Your task to perform on an android device: Open Google Chrome and open the bookmarks view Image 0: 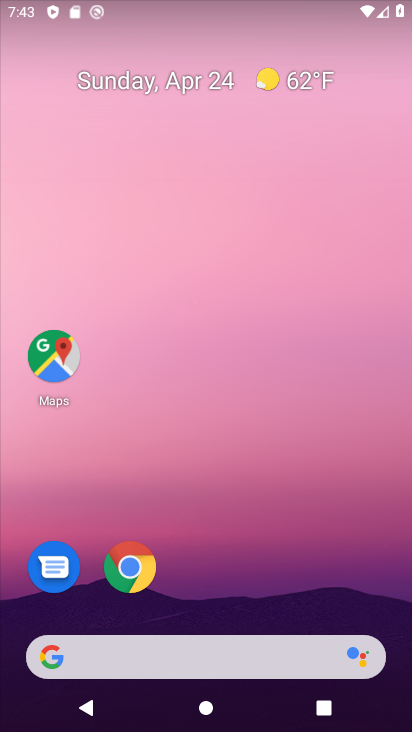
Step 0: click (137, 557)
Your task to perform on an android device: Open Google Chrome and open the bookmarks view Image 1: 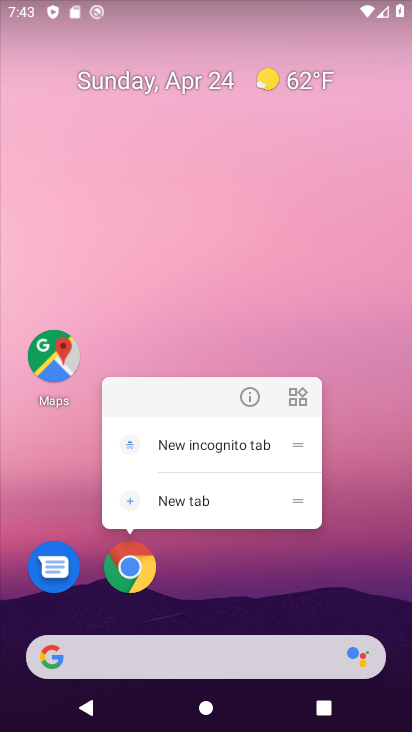
Step 1: click (138, 580)
Your task to perform on an android device: Open Google Chrome and open the bookmarks view Image 2: 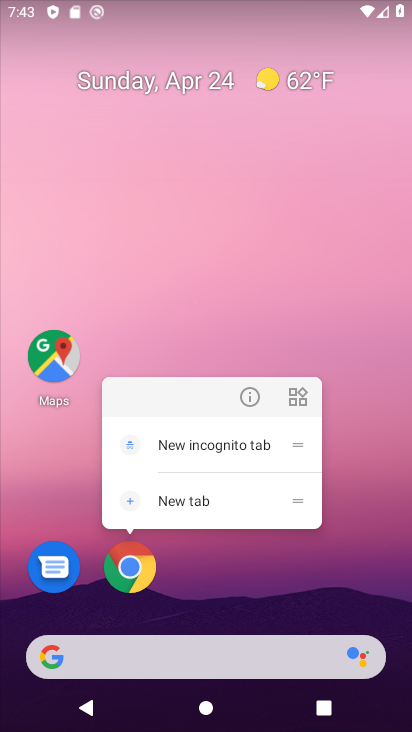
Step 2: click (138, 568)
Your task to perform on an android device: Open Google Chrome and open the bookmarks view Image 3: 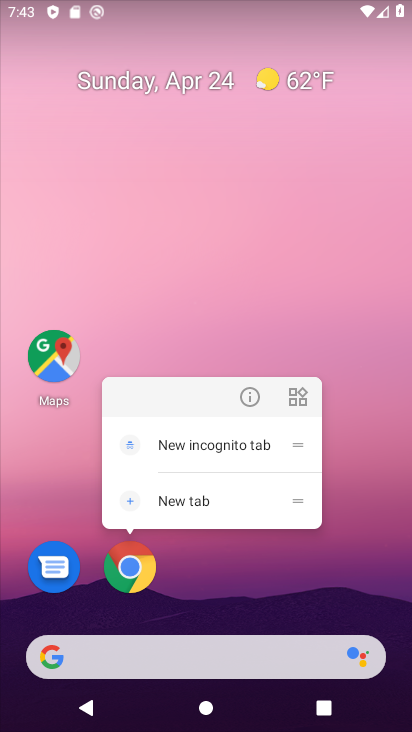
Step 3: click (127, 578)
Your task to perform on an android device: Open Google Chrome and open the bookmarks view Image 4: 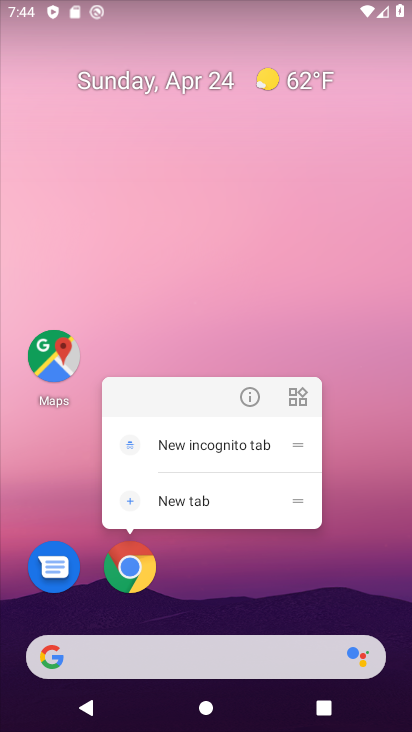
Step 4: click (141, 586)
Your task to perform on an android device: Open Google Chrome and open the bookmarks view Image 5: 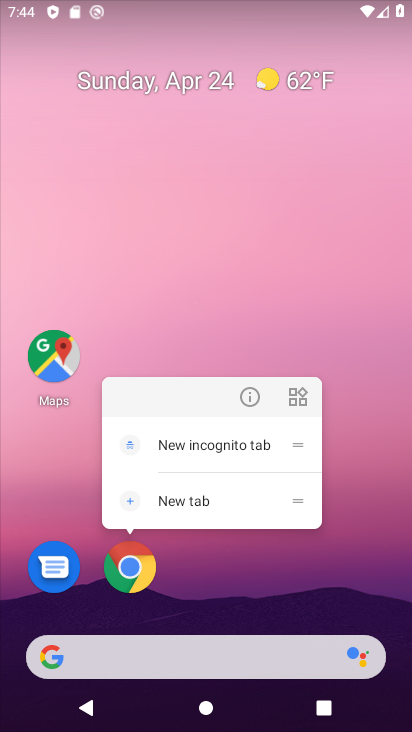
Step 5: click (141, 573)
Your task to perform on an android device: Open Google Chrome and open the bookmarks view Image 6: 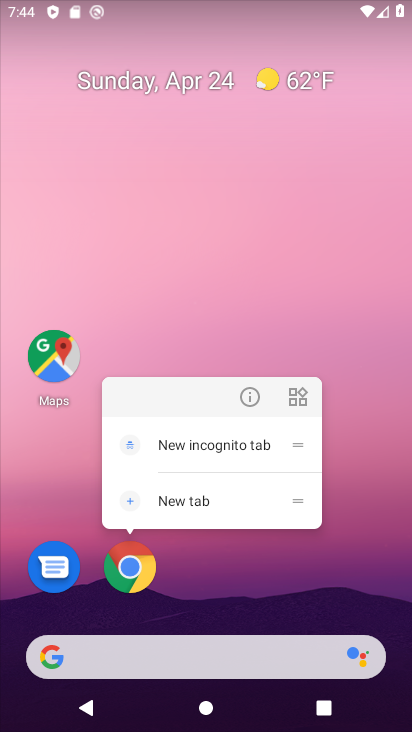
Step 6: click (171, 573)
Your task to perform on an android device: Open Google Chrome and open the bookmarks view Image 7: 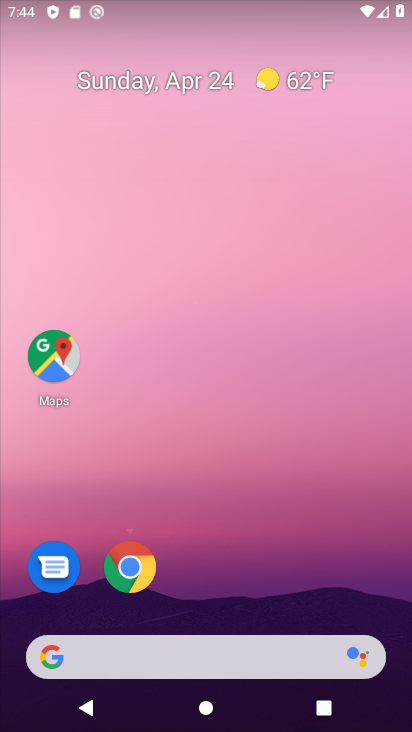
Step 7: click (152, 571)
Your task to perform on an android device: Open Google Chrome and open the bookmarks view Image 8: 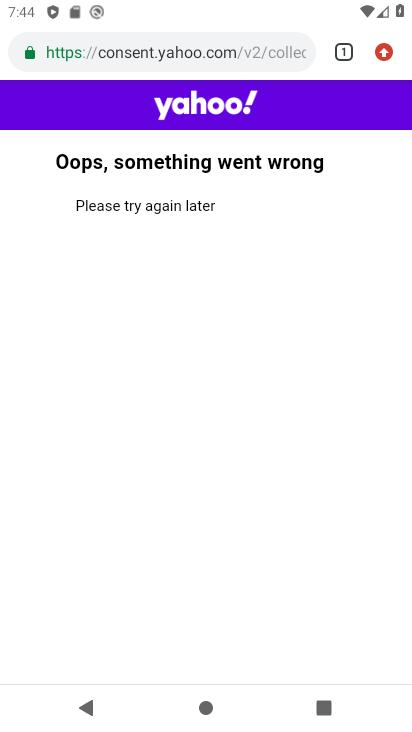
Step 8: task complete